Your task to perform on an android device: read, delete, or share a saved page in the chrome app Image 0: 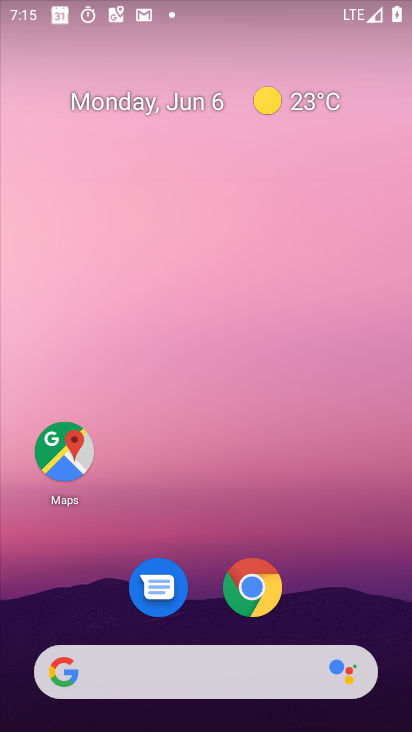
Step 0: drag from (387, 616) to (262, 98)
Your task to perform on an android device: read, delete, or share a saved page in the chrome app Image 1: 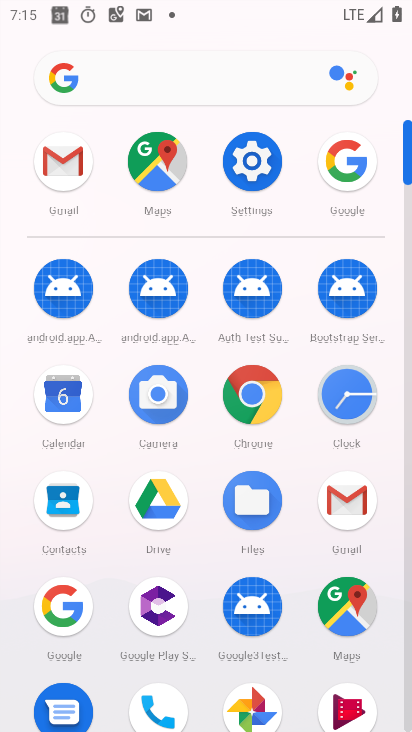
Step 1: click (251, 383)
Your task to perform on an android device: read, delete, or share a saved page in the chrome app Image 2: 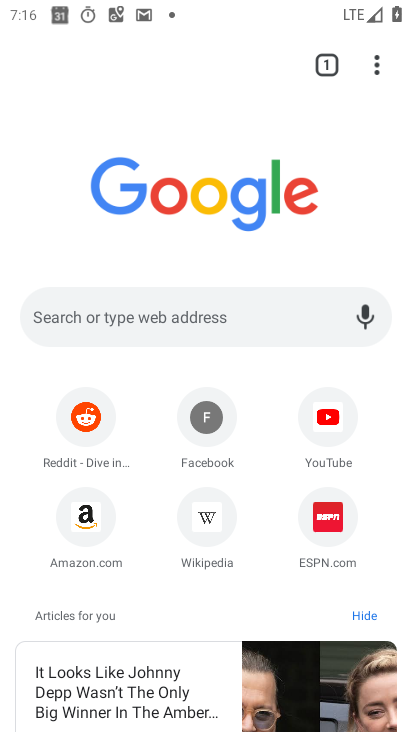
Step 2: task complete